Your task to perform on an android device: Open Wikipedia Image 0: 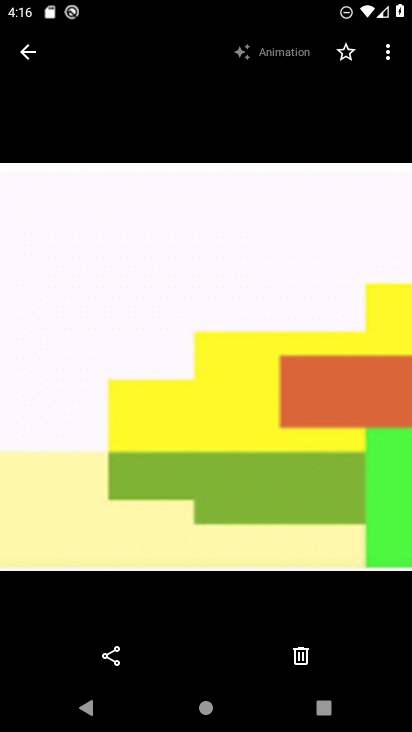
Step 0: press home button
Your task to perform on an android device: Open Wikipedia Image 1: 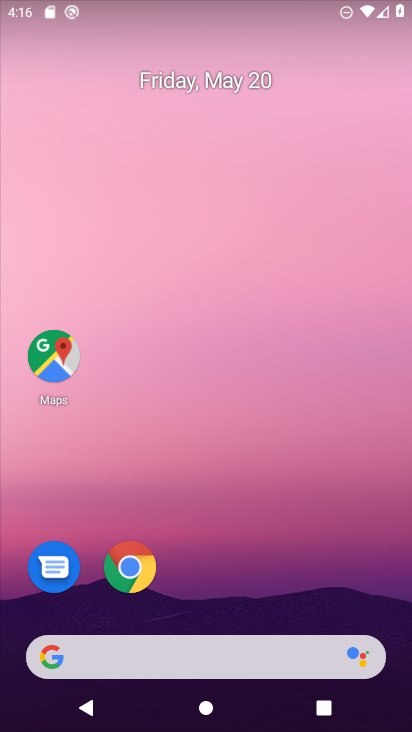
Step 1: click (130, 566)
Your task to perform on an android device: Open Wikipedia Image 2: 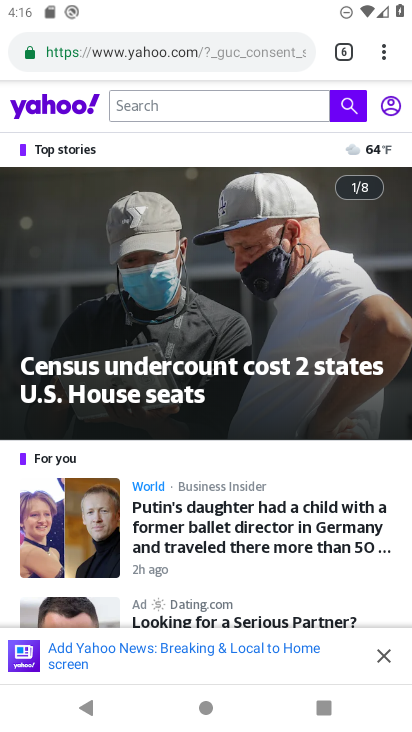
Step 2: click (384, 58)
Your task to perform on an android device: Open Wikipedia Image 3: 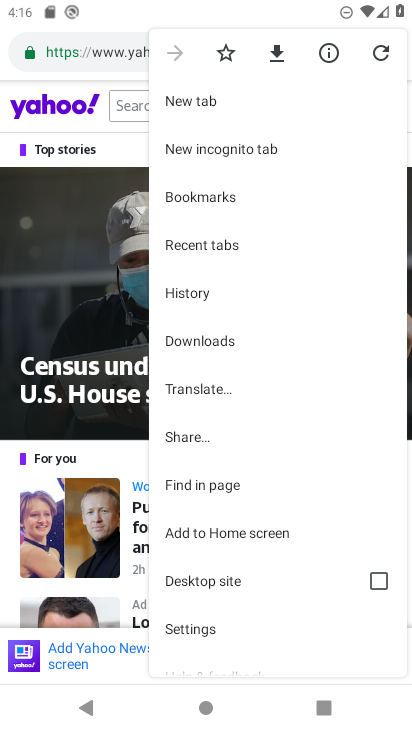
Step 3: click (193, 97)
Your task to perform on an android device: Open Wikipedia Image 4: 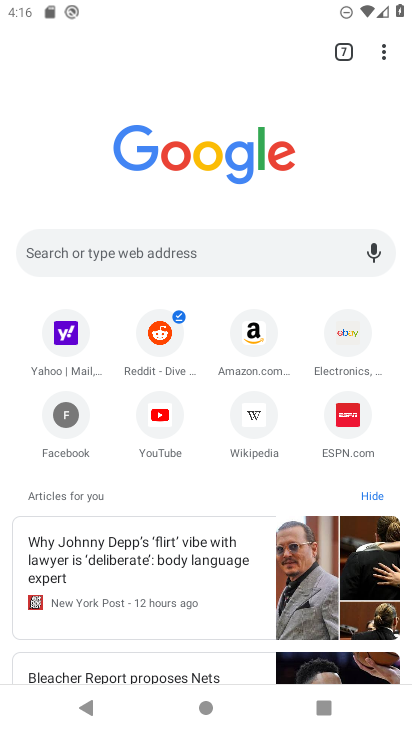
Step 4: click (251, 422)
Your task to perform on an android device: Open Wikipedia Image 5: 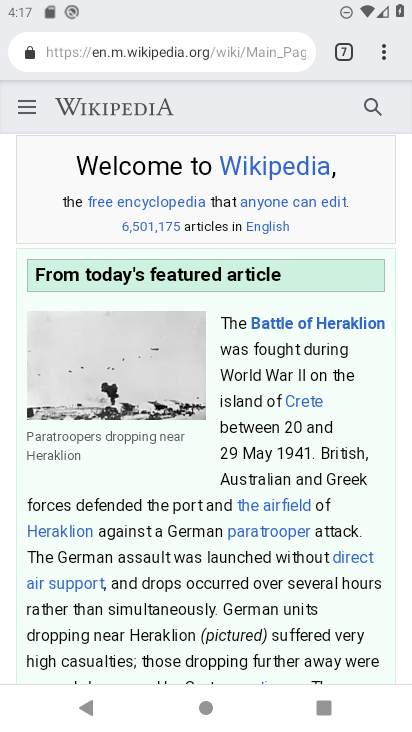
Step 5: task complete